Your task to perform on an android device: turn on data saver in the chrome app Image 0: 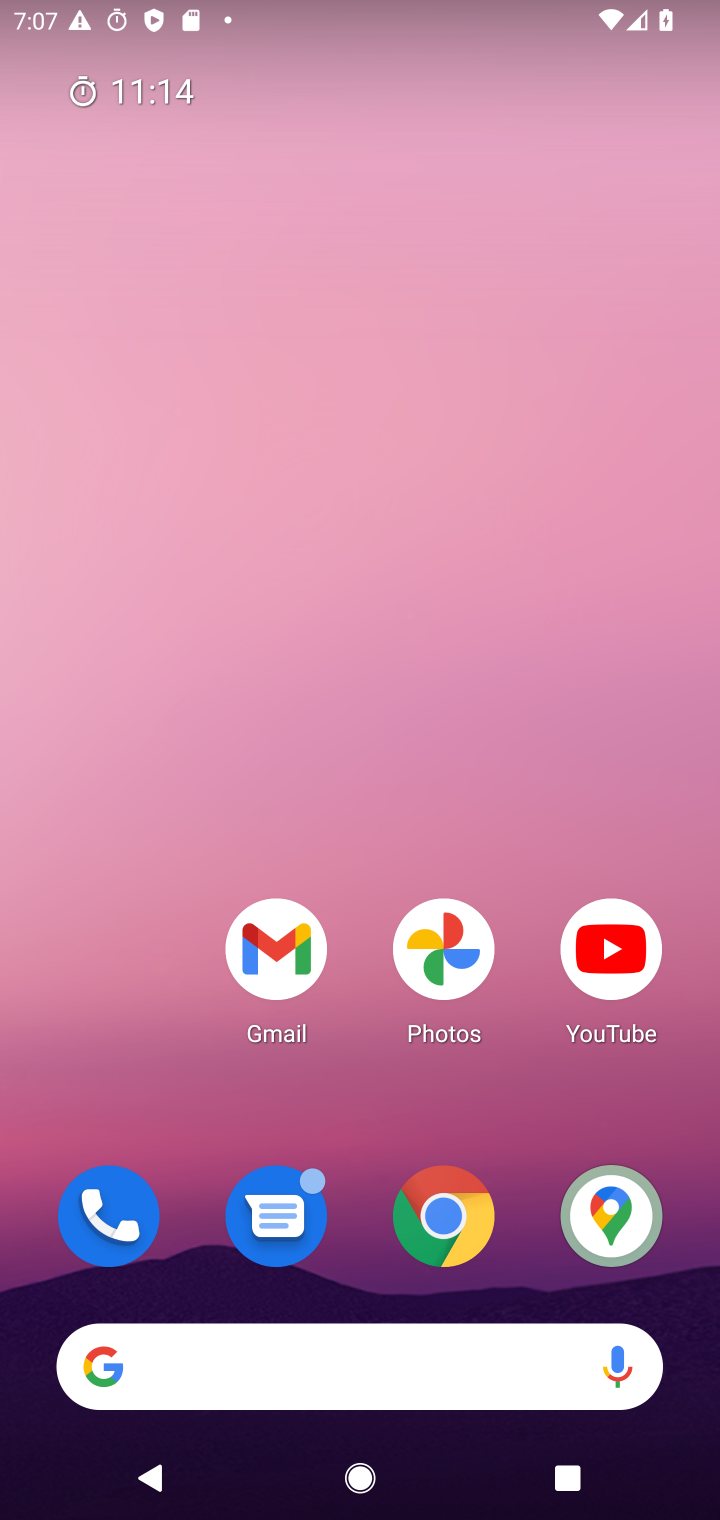
Step 0: drag from (417, 948) to (602, 0)
Your task to perform on an android device: turn on data saver in the chrome app Image 1: 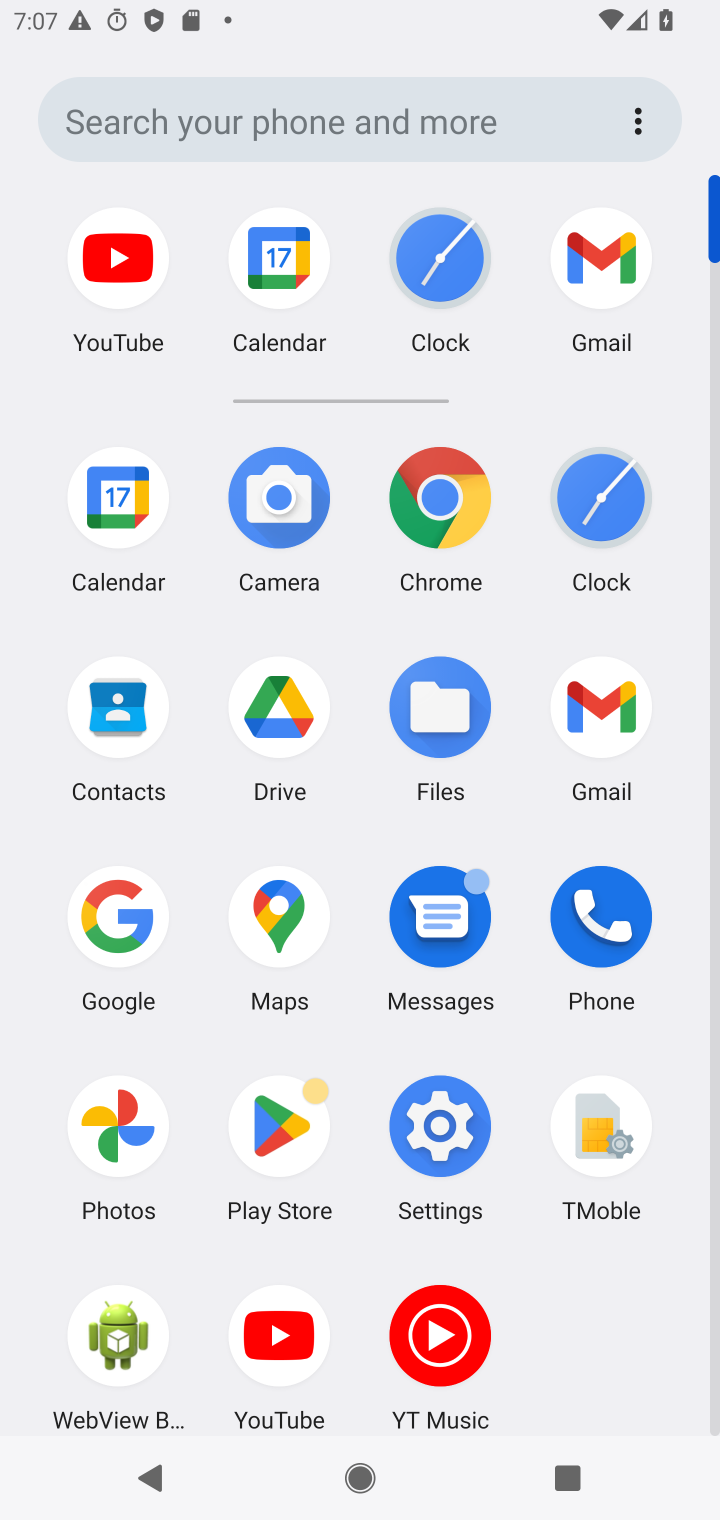
Step 1: click (451, 489)
Your task to perform on an android device: turn on data saver in the chrome app Image 2: 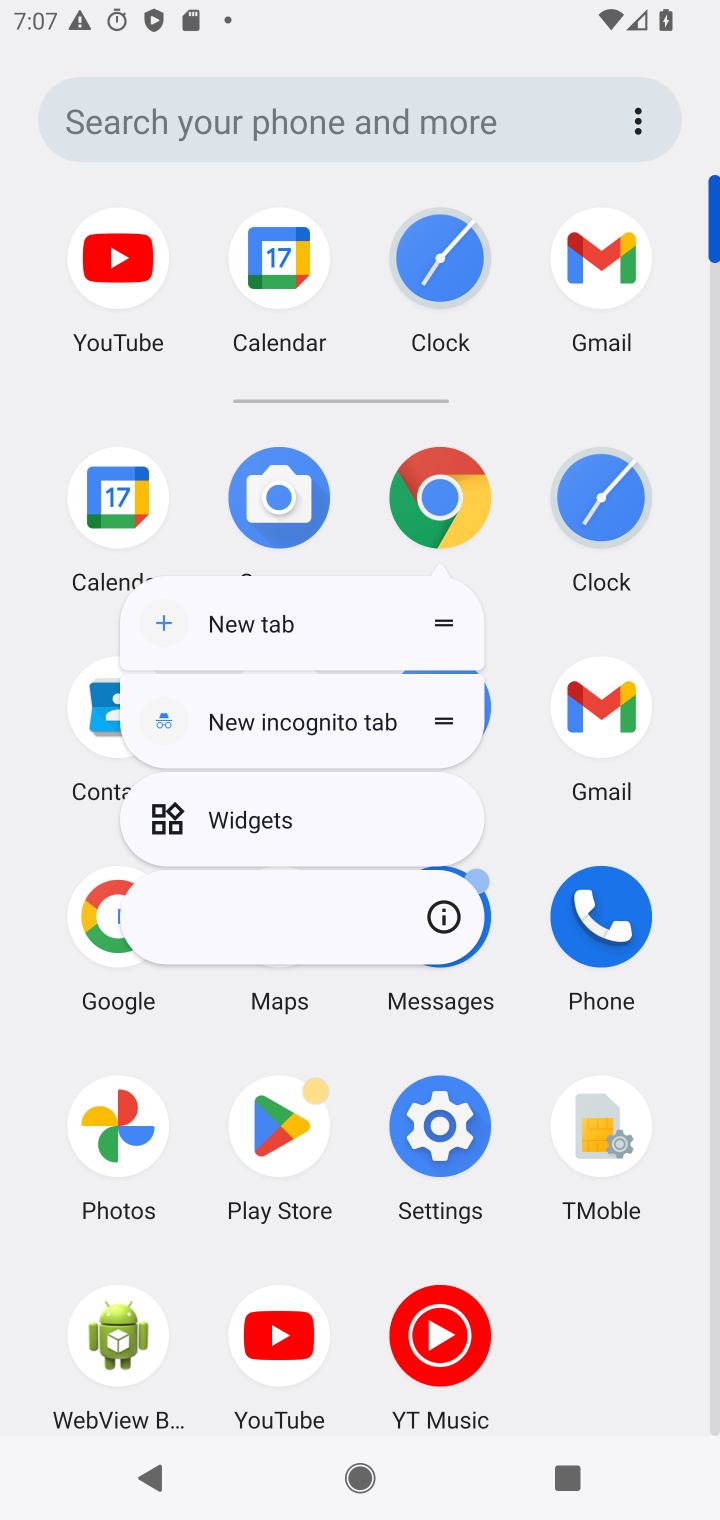
Step 2: click (456, 486)
Your task to perform on an android device: turn on data saver in the chrome app Image 3: 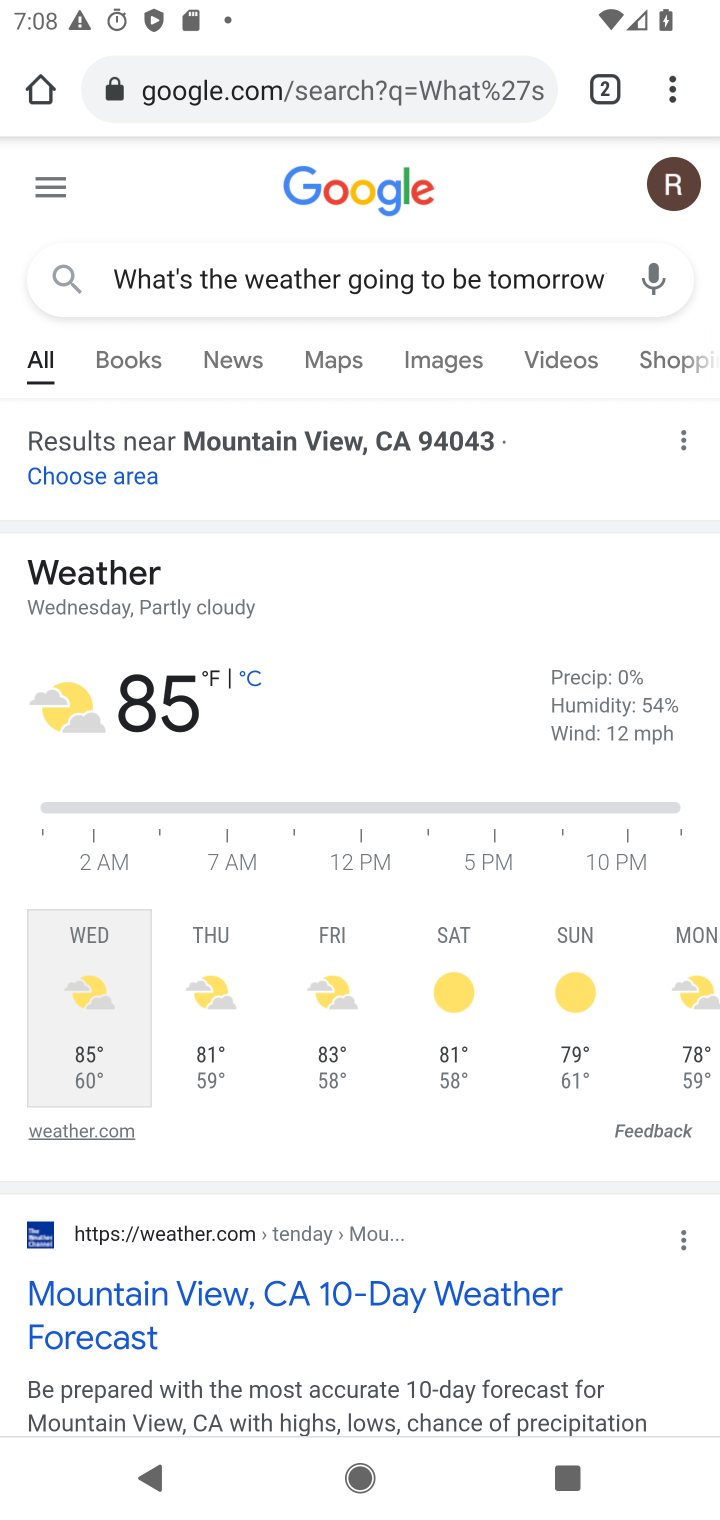
Step 3: click (673, 79)
Your task to perform on an android device: turn on data saver in the chrome app Image 4: 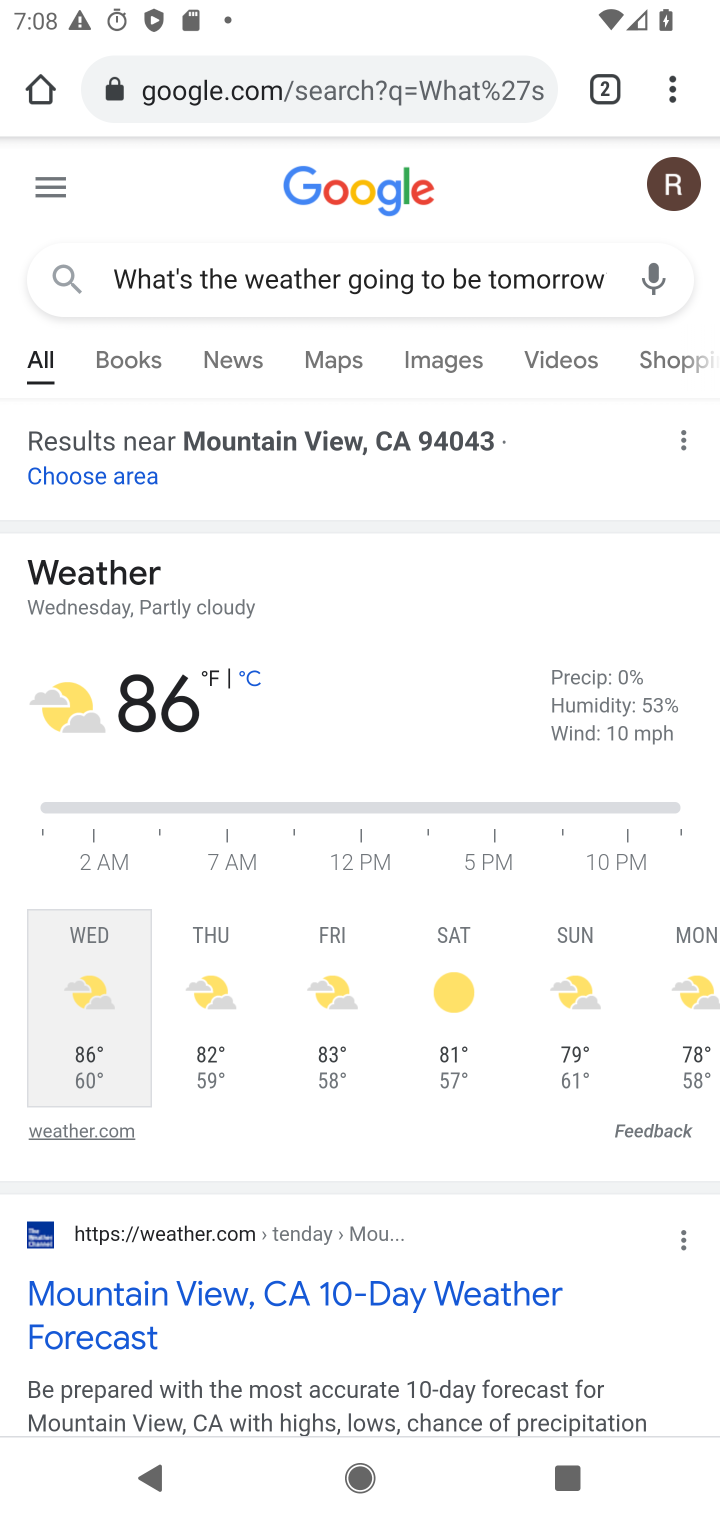
Step 4: drag from (678, 85) to (406, 1199)
Your task to perform on an android device: turn on data saver in the chrome app Image 5: 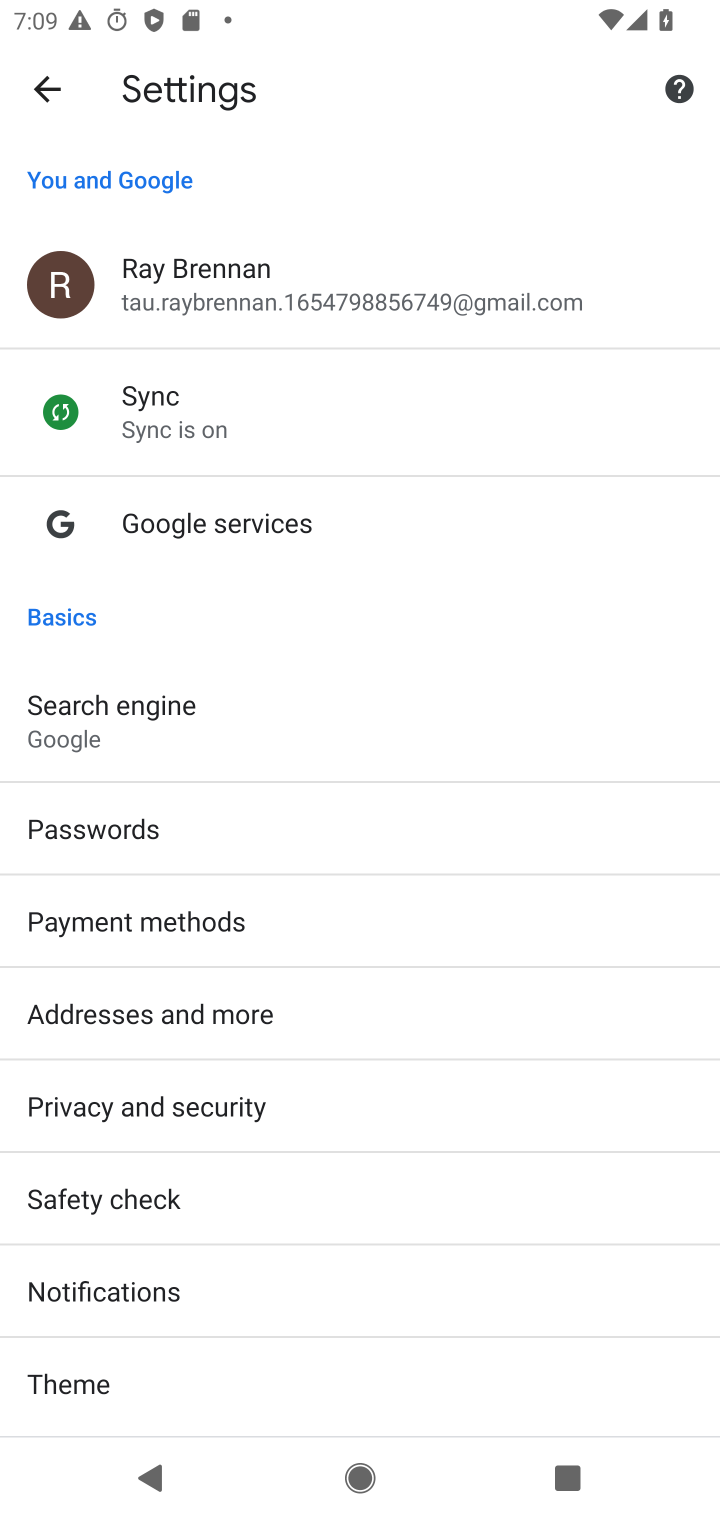
Step 5: drag from (400, 1290) to (426, 395)
Your task to perform on an android device: turn on data saver in the chrome app Image 6: 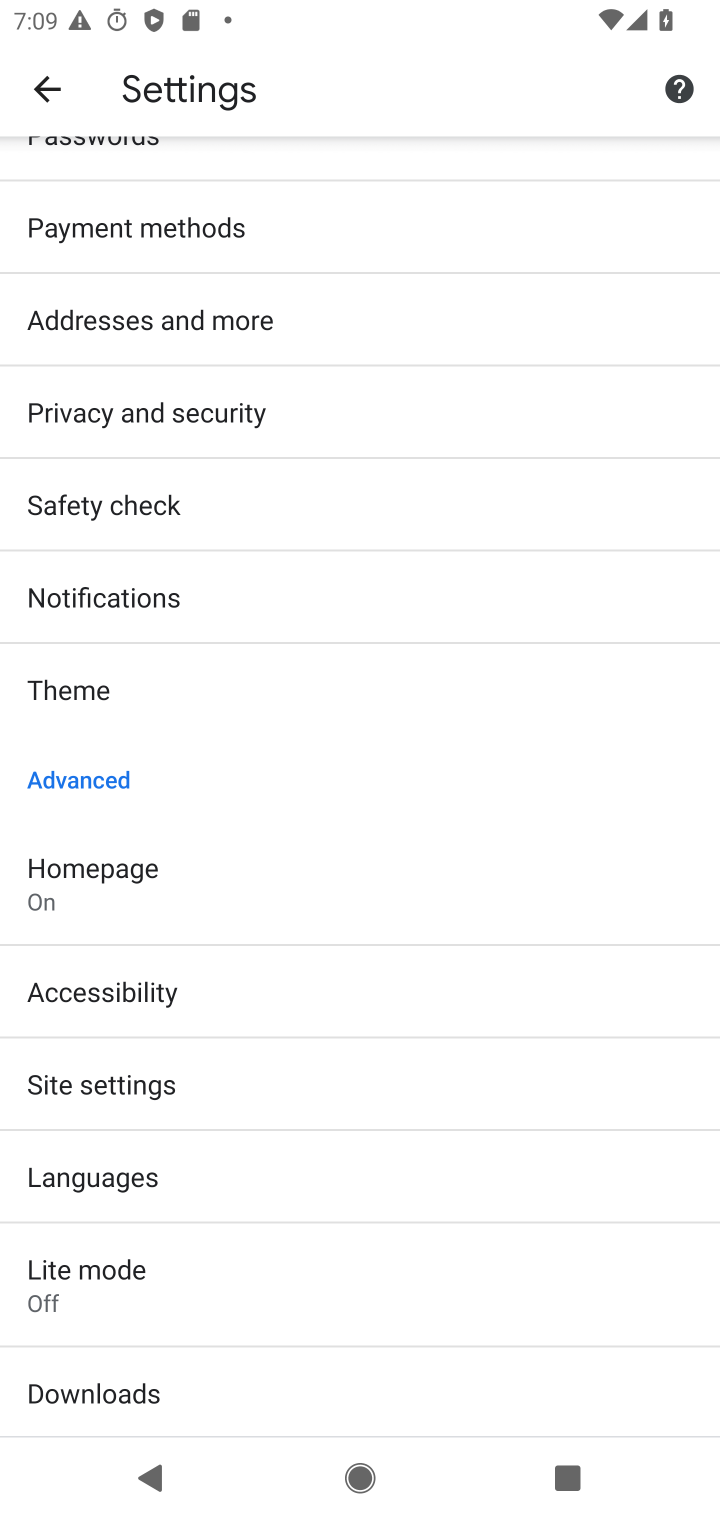
Step 6: click (162, 1084)
Your task to perform on an android device: turn on data saver in the chrome app Image 7: 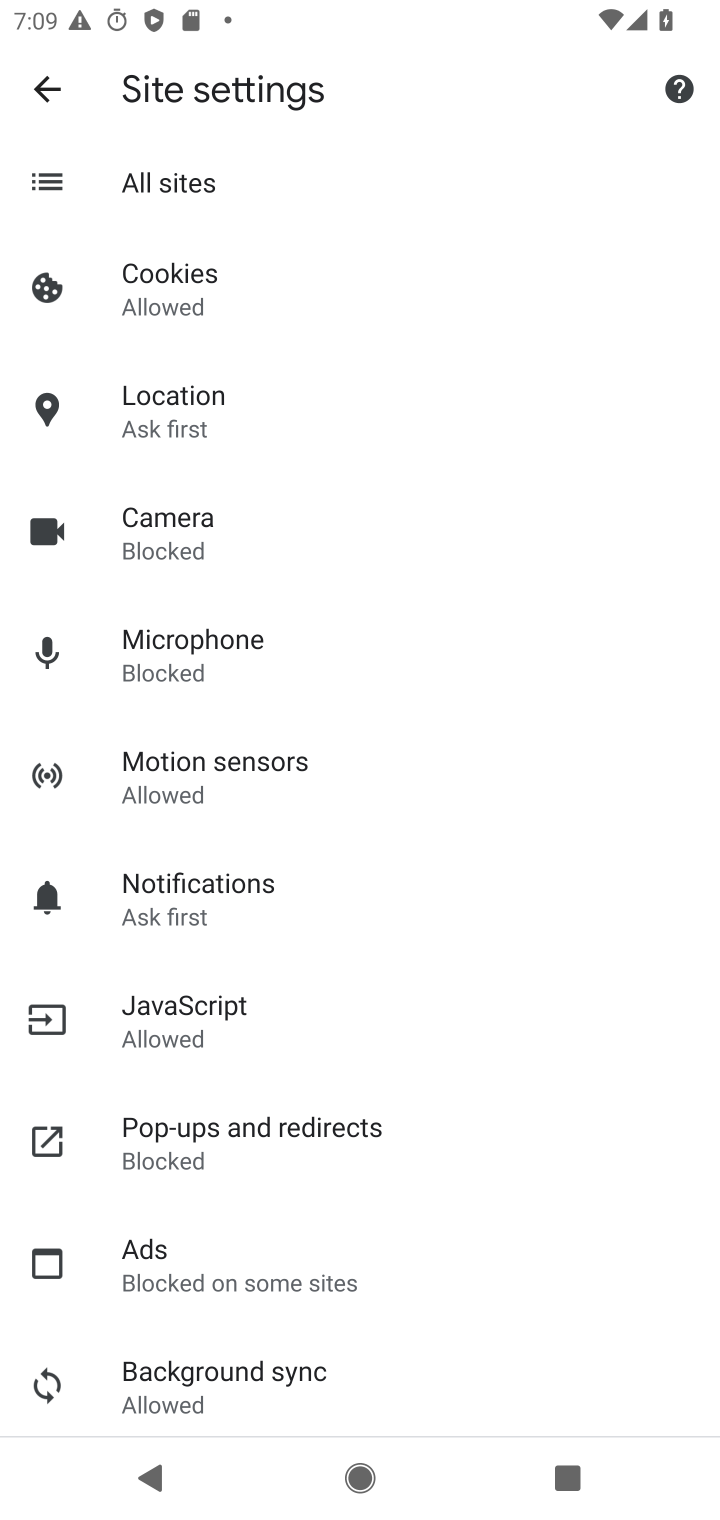
Step 7: press back button
Your task to perform on an android device: turn on data saver in the chrome app Image 8: 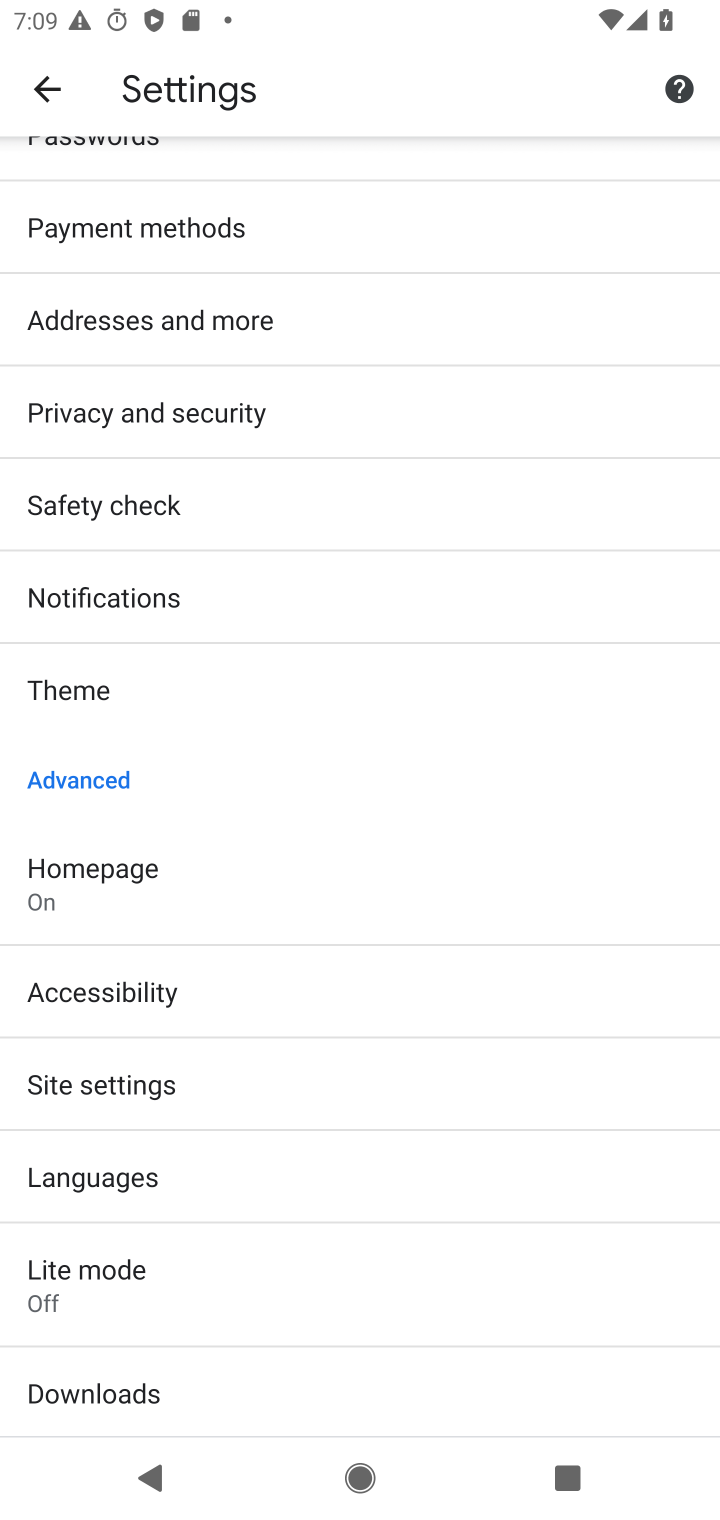
Step 8: click (103, 1288)
Your task to perform on an android device: turn on data saver in the chrome app Image 9: 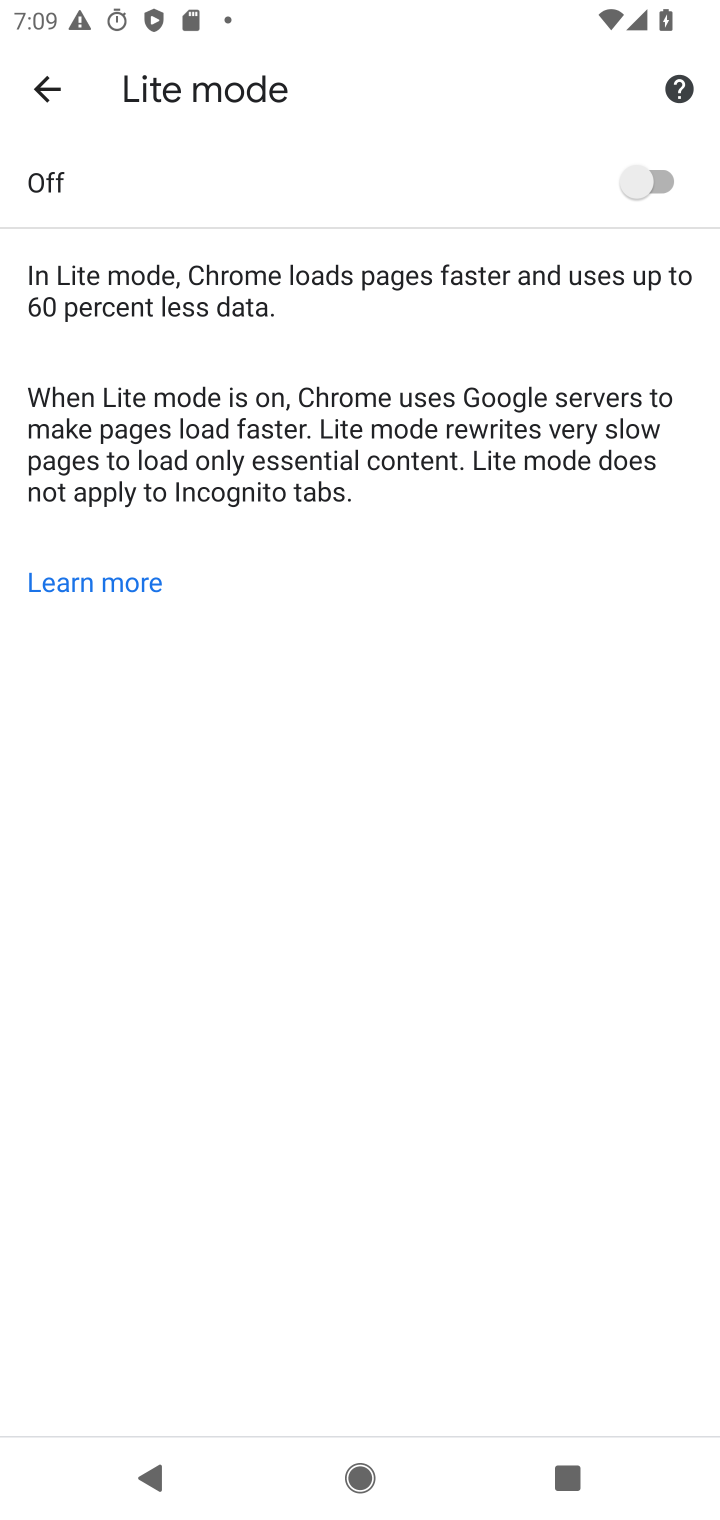
Step 9: click (629, 181)
Your task to perform on an android device: turn on data saver in the chrome app Image 10: 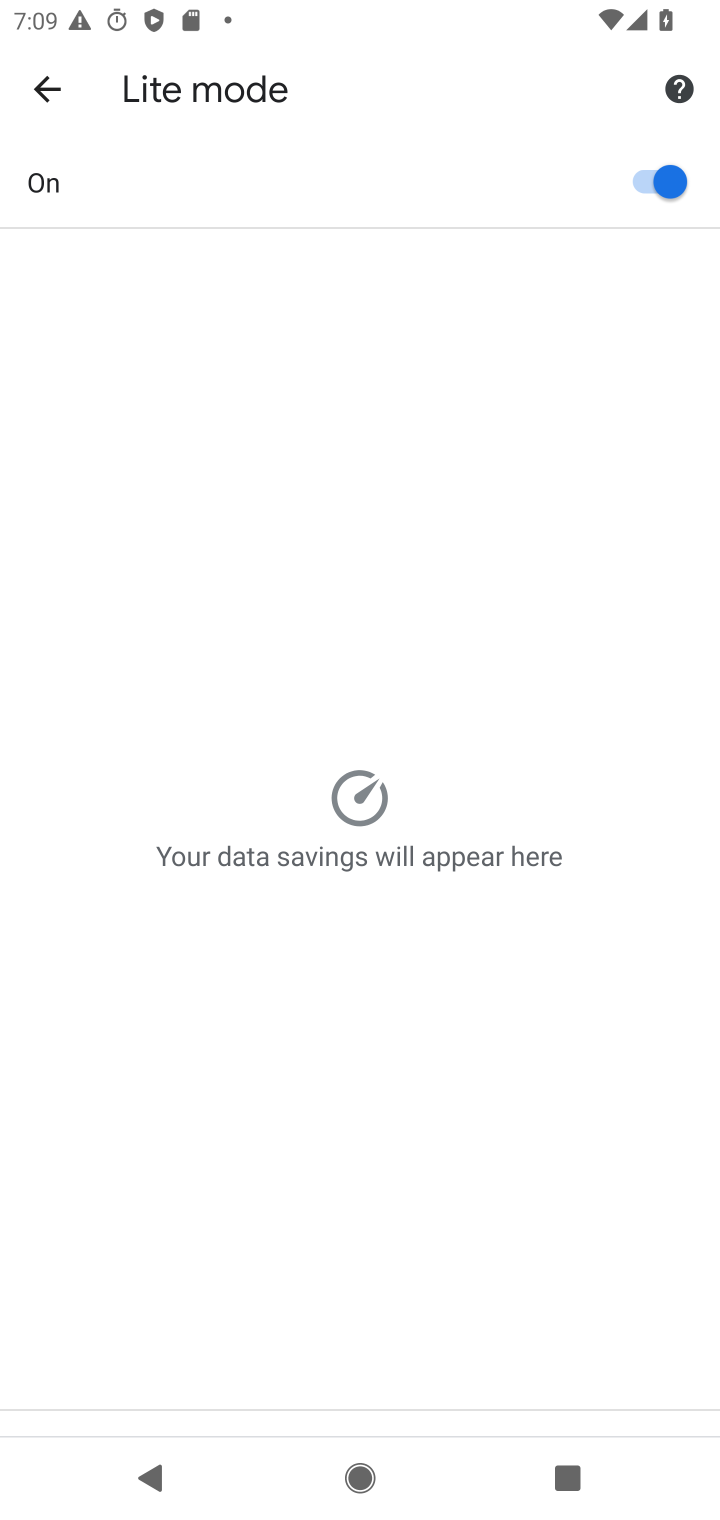
Step 10: task complete